Your task to perform on an android device: Go to Maps Image 0: 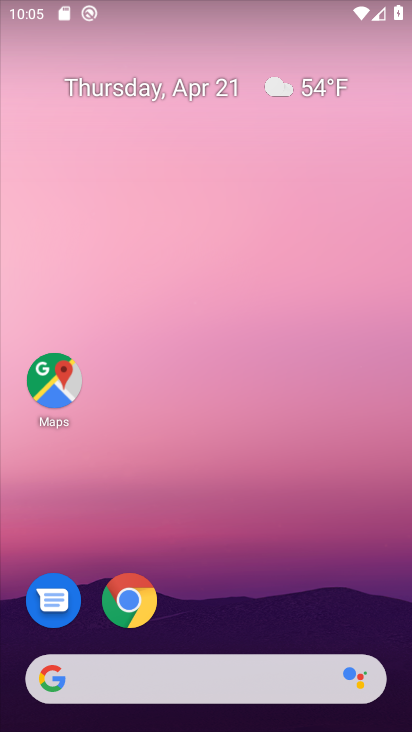
Step 0: click (50, 378)
Your task to perform on an android device: Go to Maps Image 1: 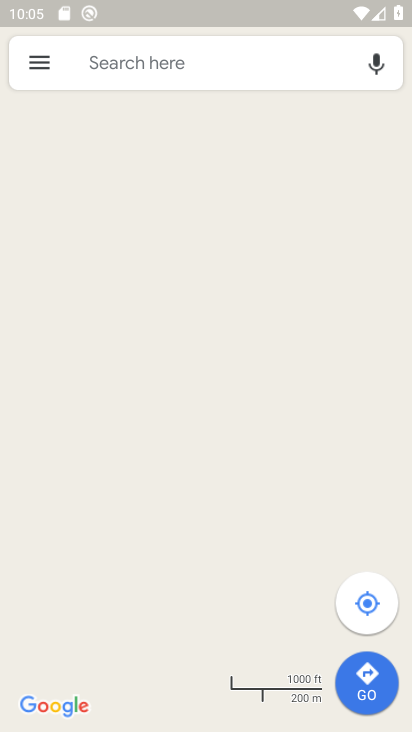
Step 1: task complete